Your task to perform on an android device: Is it going to rain today? Image 0: 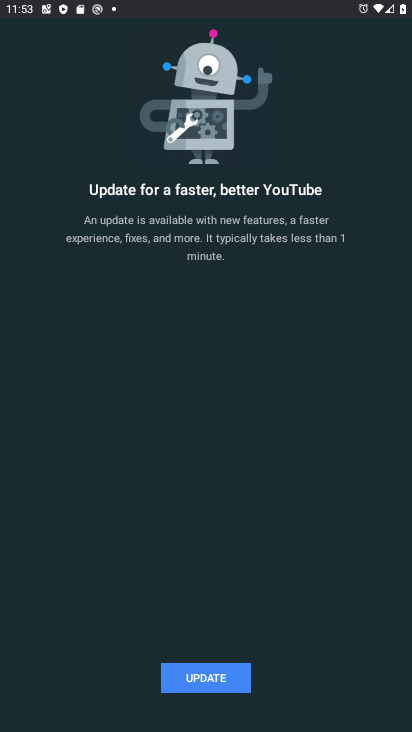
Step 0: press home button
Your task to perform on an android device: Is it going to rain today? Image 1: 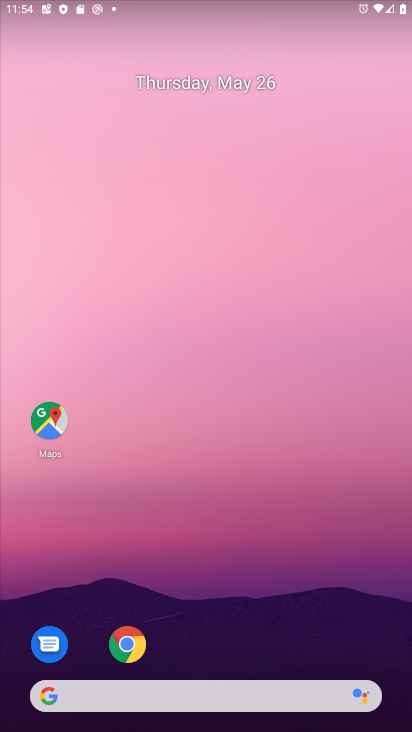
Step 1: drag from (224, 640) to (200, 114)
Your task to perform on an android device: Is it going to rain today? Image 2: 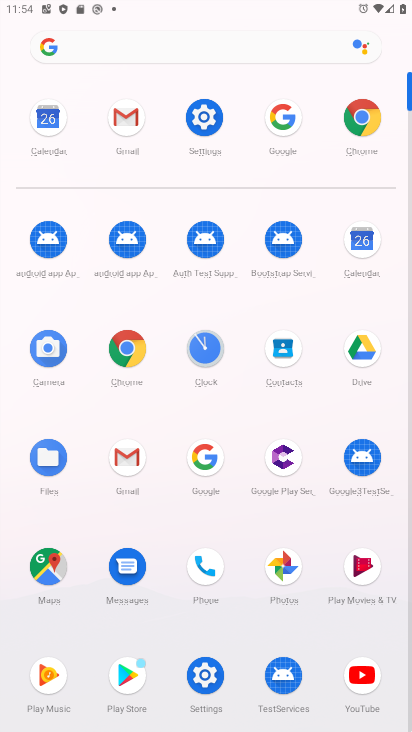
Step 2: click (203, 457)
Your task to perform on an android device: Is it going to rain today? Image 3: 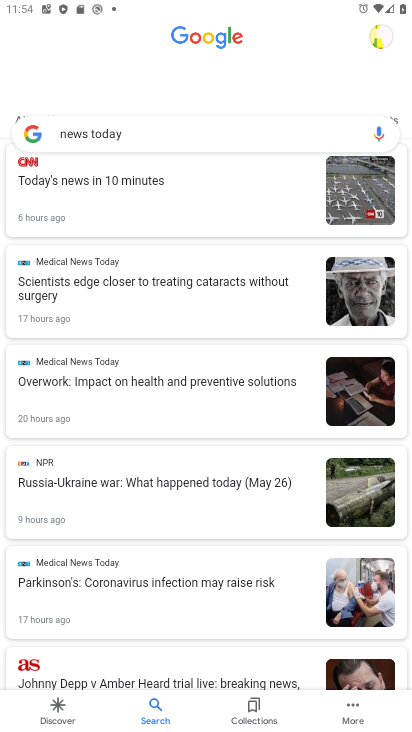
Step 3: click (284, 135)
Your task to perform on an android device: Is it going to rain today? Image 4: 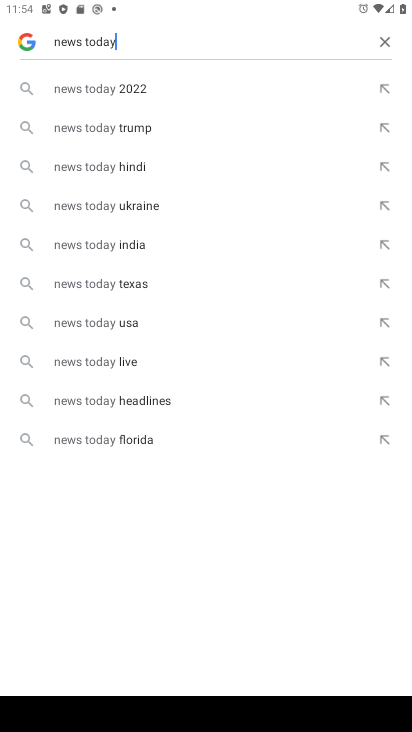
Step 4: click (379, 42)
Your task to perform on an android device: Is it going to rain today? Image 5: 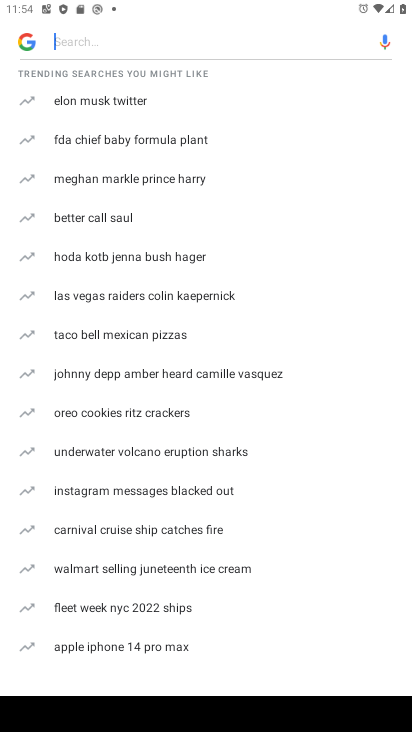
Step 5: click (80, 41)
Your task to perform on an android device: Is it going to rain today? Image 6: 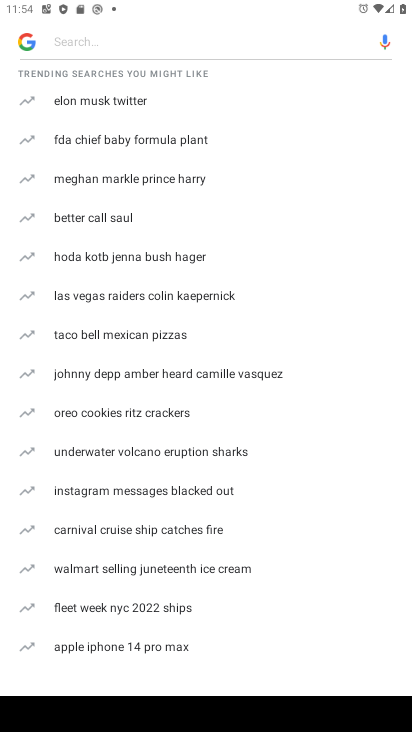
Step 6: type "weather"
Your task to perform on an android device: Is it going to rain today? Image 7: 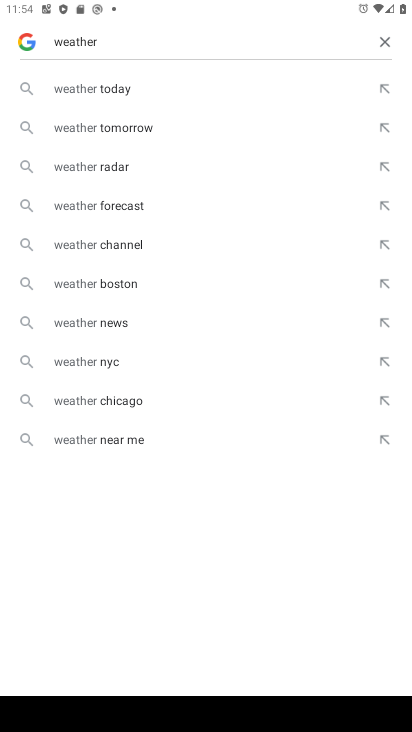
Step 7: click (129, 92)
Your task to perform on an android device: Is it going to rain today? Image 8: 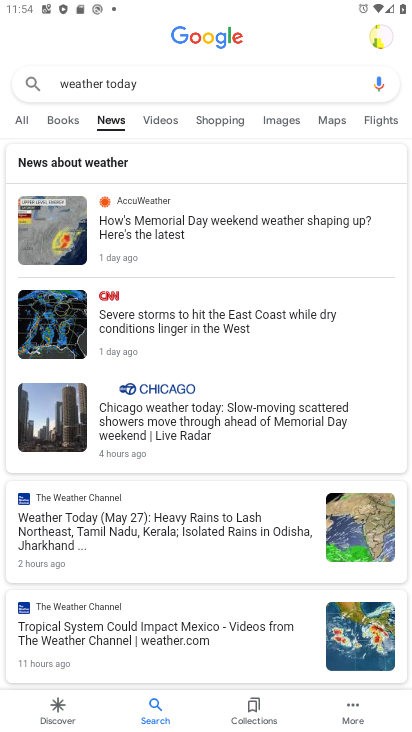
Step 8: click (21, 120)
Your task to perform on an android device: Is it going to rain today? Image 9: 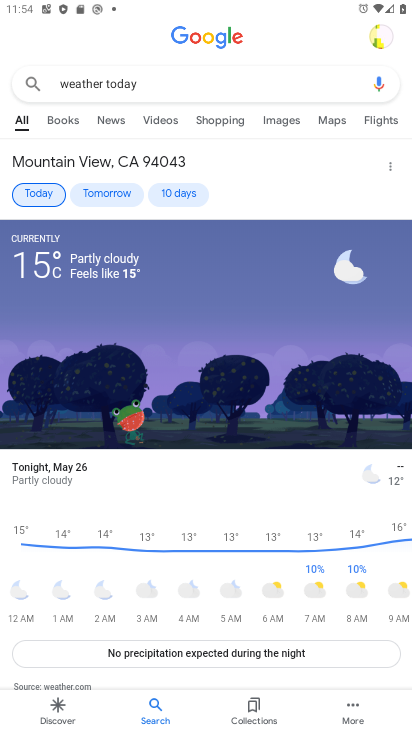
Step 9: task complete